Your task to perform on an android device: turn off wifi Image 0: 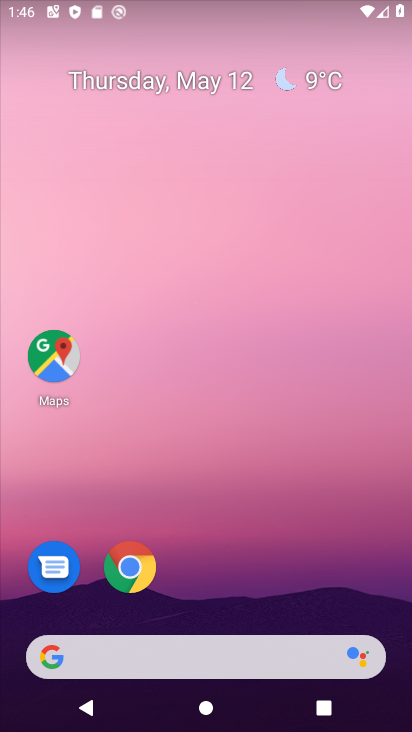
Step 0: drag from (206, 618) to (226, 65)
Your task to perform on an android device: turn off wifi Image 1: 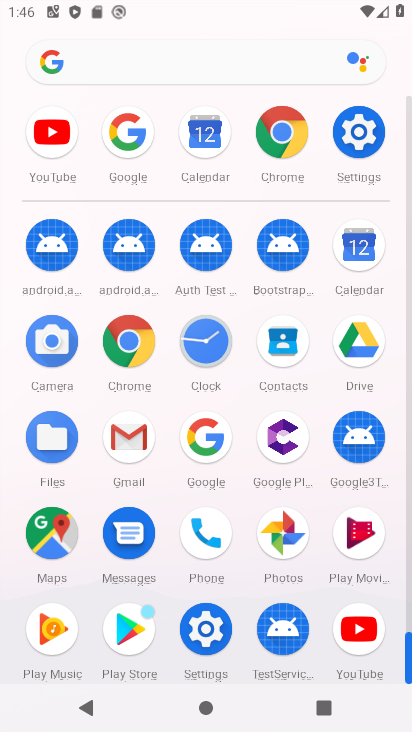
Step 1: drag from (273, 622) to (249, 254)
Your task to perform on an android device: turn off wifi Image 2: 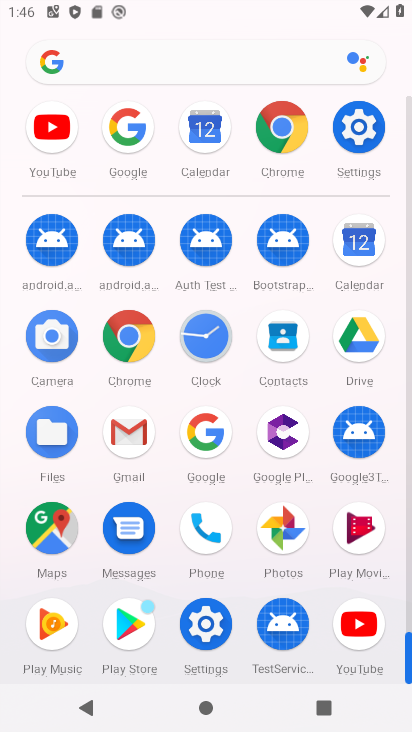
Step 2: click (203, 649)
Your task to perform on an android device: turn off wifi Image 3: 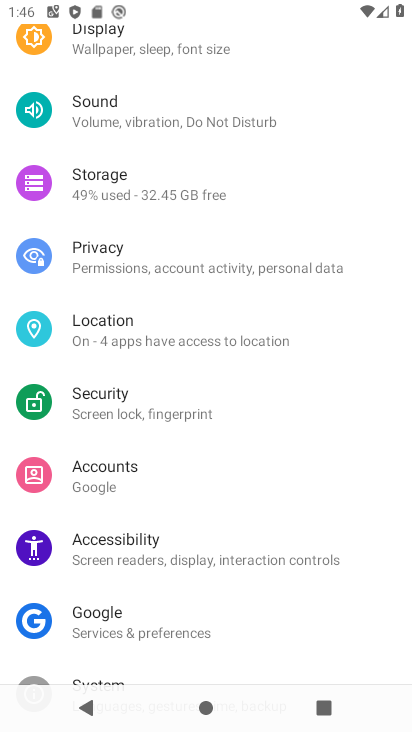
Step 3: drag from (246, 184) to (223, 572)
Your task to perform on an android device: turn off wifi Image 4: 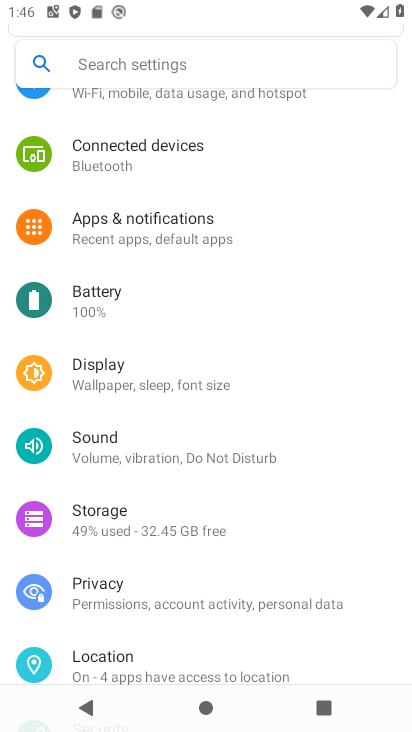
Step 4: drag from (233, 210) to (166, 583)
Your task to perform on an android device: turn off wifi Image 5: 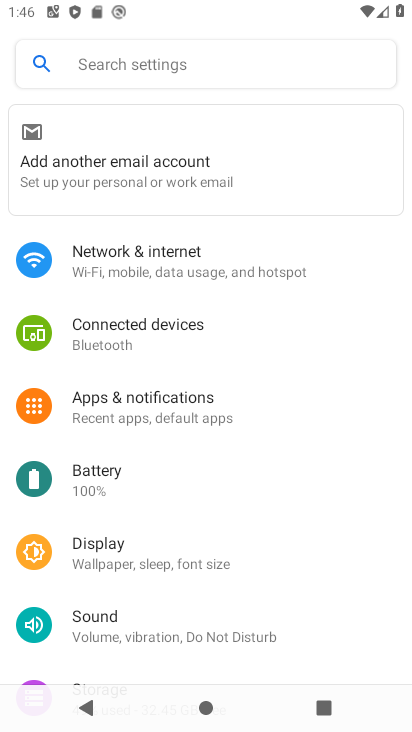
Step 5: click (164, 269)
Your task to perform on an android device: turn off wifi Image 6: 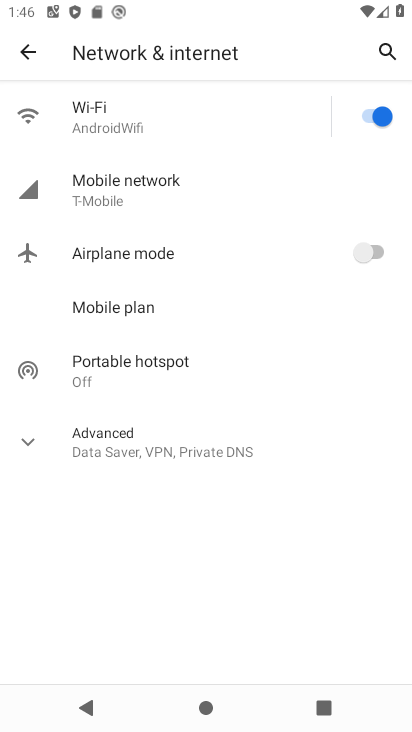
Step 6: click (372, 130)
Your task to perform on an android device: turn off wifi Image 7: 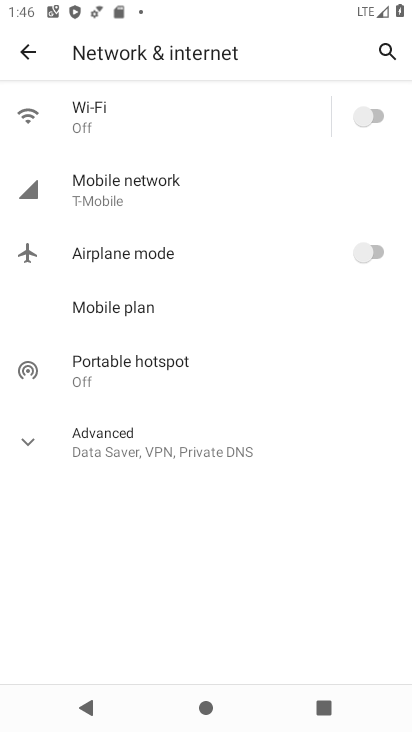
Step 7: task complete